Your task to perform on an android device: open app "DuckDuckGo Privacy Browser" (install if not already installed) Image 0: 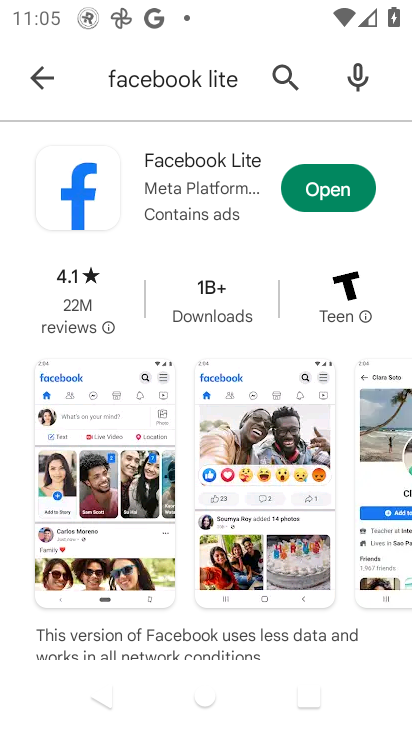
Step 0: click (49, 77)
Your task to perform on an android device: open app "DuckDuckGo Privacy Browser" (install if not already installed) Image 1: 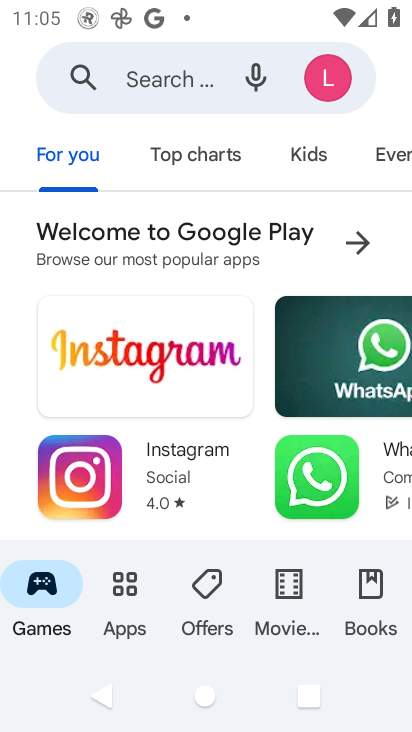
Step 1: click (131, 83)
Your task to perform on an android device: open app "DuckDuckGo Privacy Browser" (install if not already installed) Image 2: 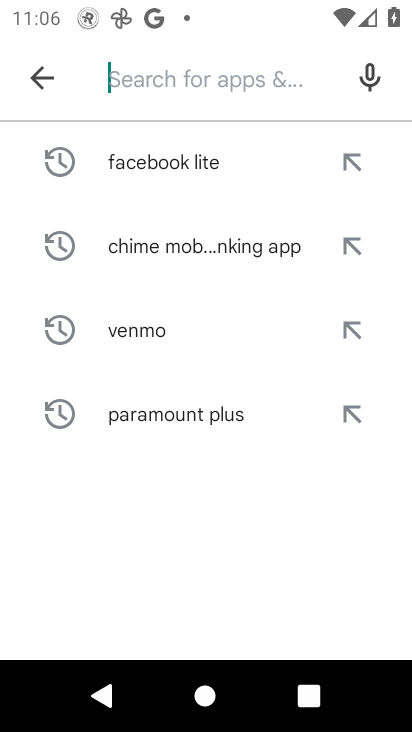
Step 2: type "DuckDuckGo Privacy Browser"
Your task to perform on an android device: open app "DuckDuckGo Privacy Browser" (install if not already installed) Image 3: 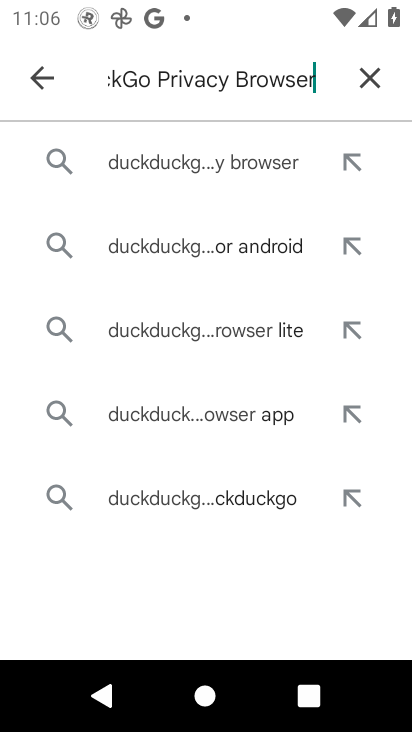
Step 3: click (207, 161)
Your task to perform on an android device: open app "DuckDuckGo Privacy Browser" (install if not already installed) Image 4: 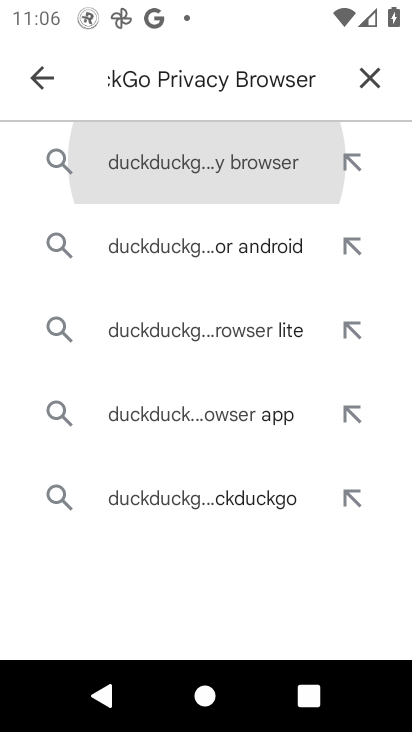
Step 4: click (211, 156)
Your task to perform on an android device: open app "DuckDuckGo Privacy Browser" (install if not already installed) Image 5: 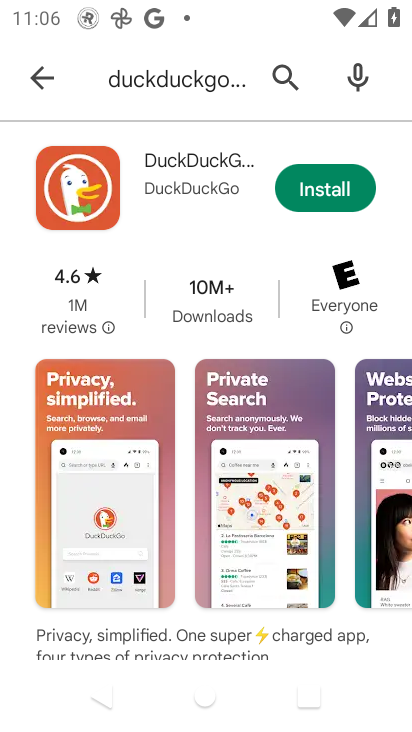
Step 5: click (339, 181)
Your task to perform on an android device: open app "DuckDuckGo Privacy Browser" (install if not already installed) Image 6: 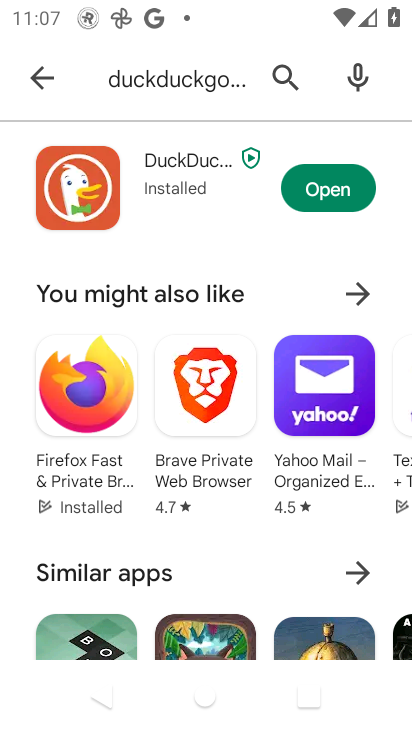
Step 6: click (329, 203)
Your task to perform on an android device: open app "DuckDuckGo Privacy Browser" (install if not already installed) Image 7: 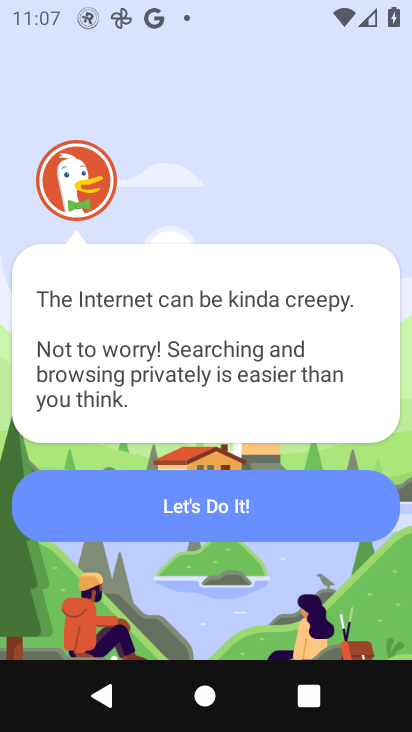
Step 7: press back button
Your task to perform on an android device: open app "DuckDuckGo Privacy Browser" (install if not already installed) Image 8: 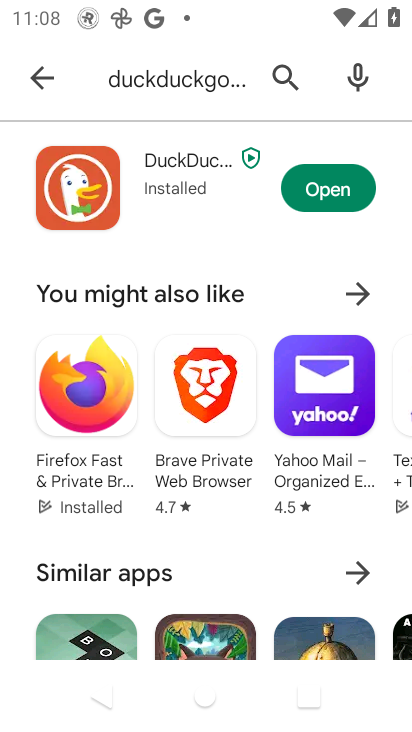
Step 8: click (28, 77)
Your task to perform on an android device: open app "DuckDuckGo Privacy Browser" (install if not already installed) Image 9: 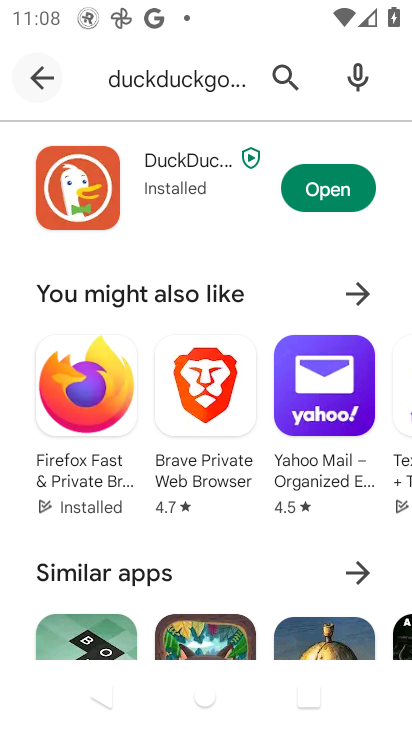
Step 9: click (28, 77)
Your task to perform on an android device: open app "DuckDuckGo Privacy Browser" (install if not already installed) Image 10: 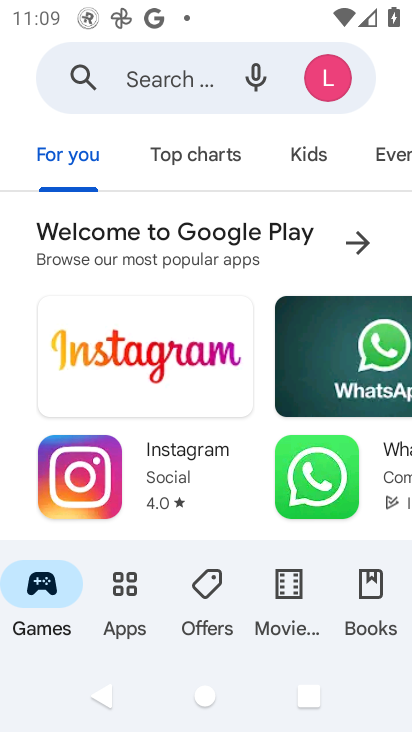
Step 10: click (161, 65)
Your task to perform on an android device: open app "DuckDuckGo Privacy Browser" (install if not already installed) Image 11: 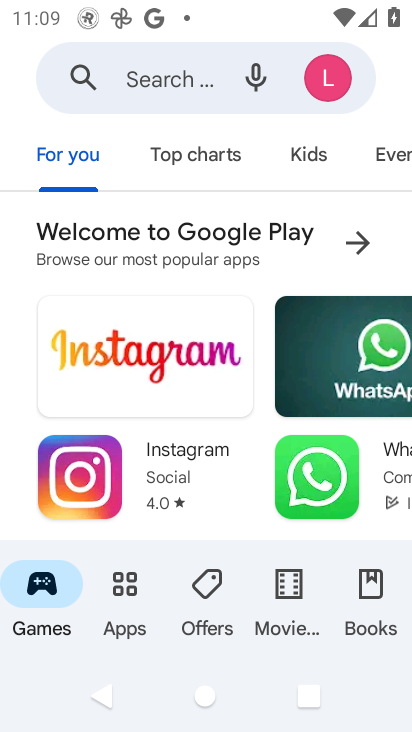
Step 11: click (160, 66)
Your task to perform on an android device: open app "DuckDuckGo Privacy Browser" (install if not already installed) Image 12: 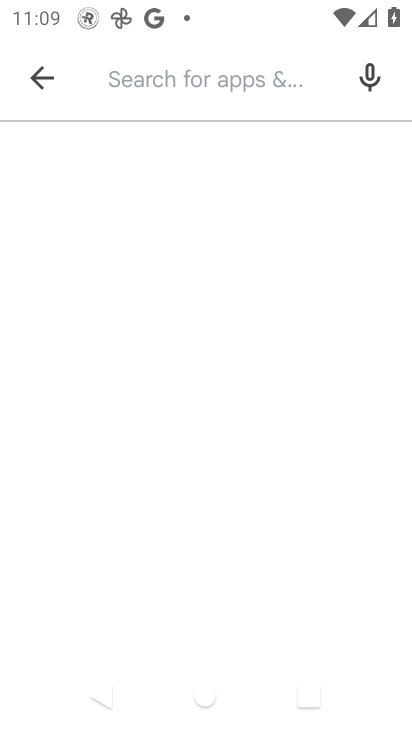
Step 12: click (160, 66)
Your task to perform on an android device: open app "DuckDuckGo Privacy Browser" (install if not already installed) Image 13: 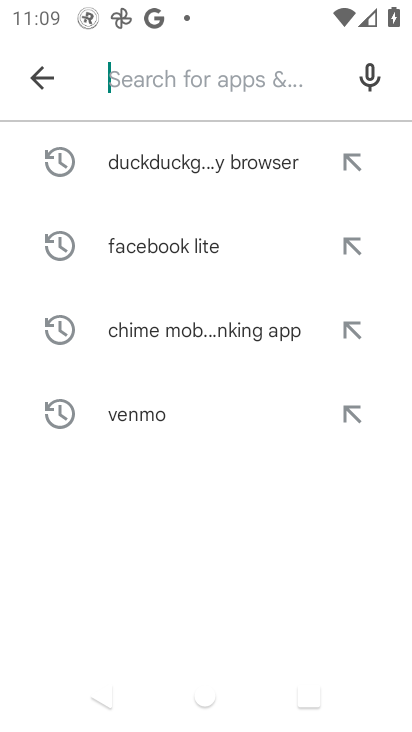
Step 13: click (159, 66)
Your task to perform on an android device: open app "DuckDuckGo Privacy Browser" (install if not already installed) Image 14: 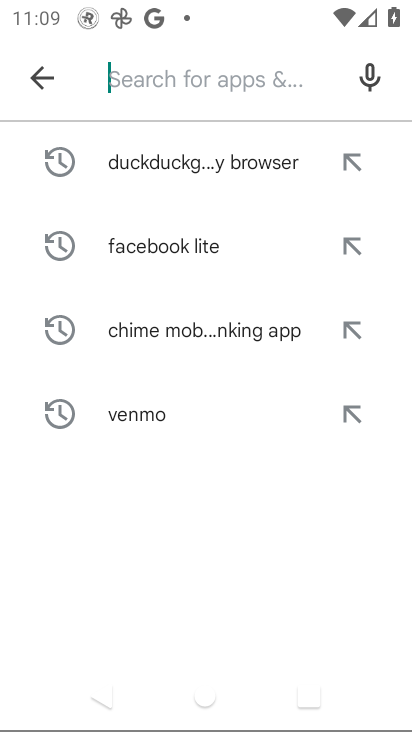
Step 14: click (159, 66)
Your task to perform on an android device: open app "DuckDuckGo Privacy Browser" (install if not already installed) Image 15: 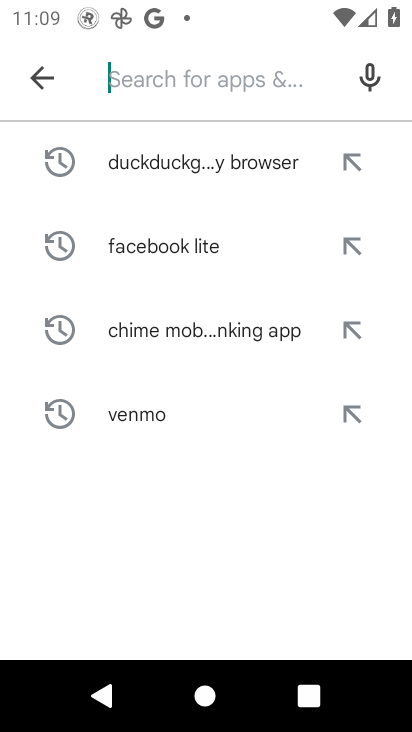
Step 15: click (268, 168)
Your task to perform on an android device: open app "DuckDuckGo Privacy Browser" (install if not already installed) Image 16: 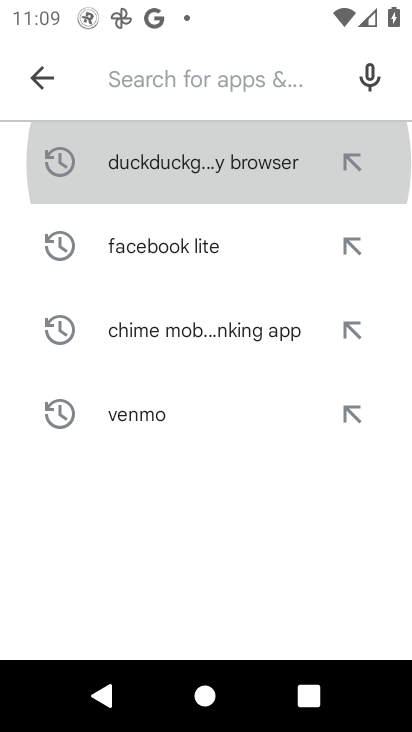
Step 16: click (268, 168)
Your task to perform on an android device: open app "DuckDuckGo Privacy Browser" (install if not already installed) Image 17: 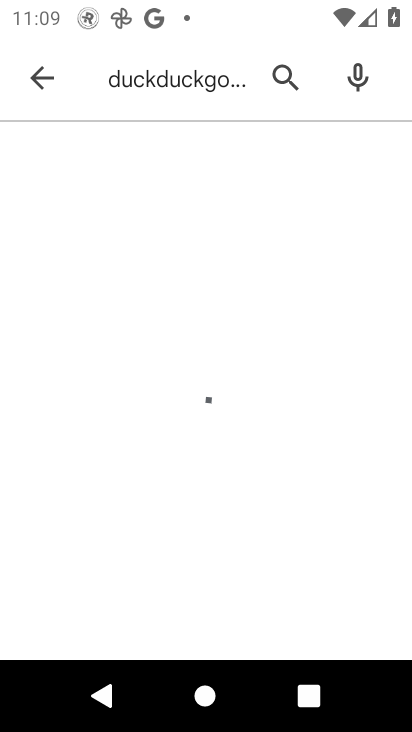
Step 17: click (268, 168)
Your task to perform on an android device: open app "DuckDuckGo Privacy Browser" (install if not already installed) Image 18: 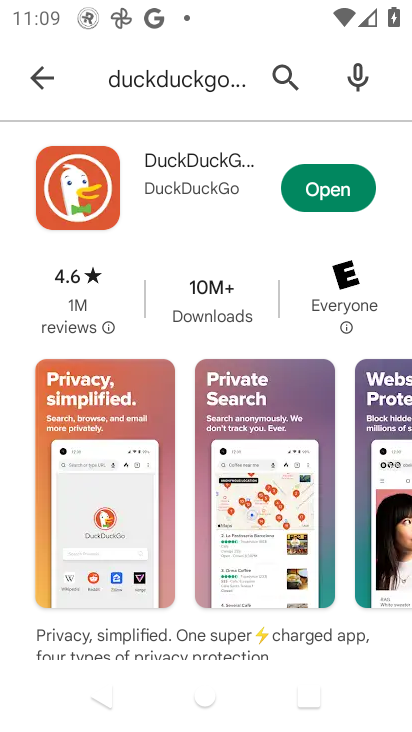
Step 18: click (318, 186)
Your task to perform on an android device: open app "DuckDuckGo Privacy Browser" (install if not already installed) Image 19: 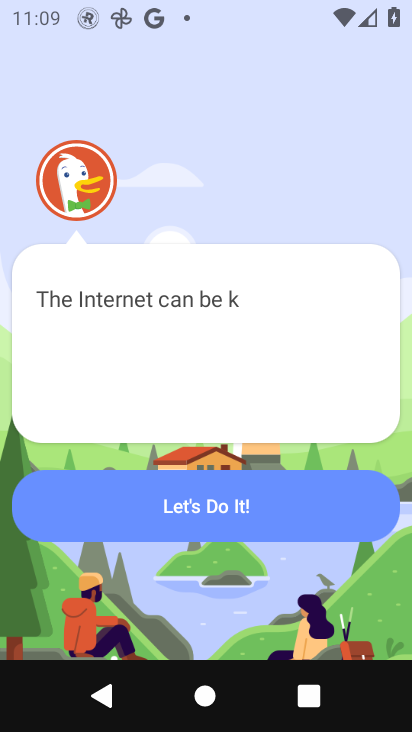
Step 19: drag from (268, 512) to (279, 256)
Your task to perform on an android device: open app "DuckDuckGo Privacy Browser" (install if not already installed) Image 20: 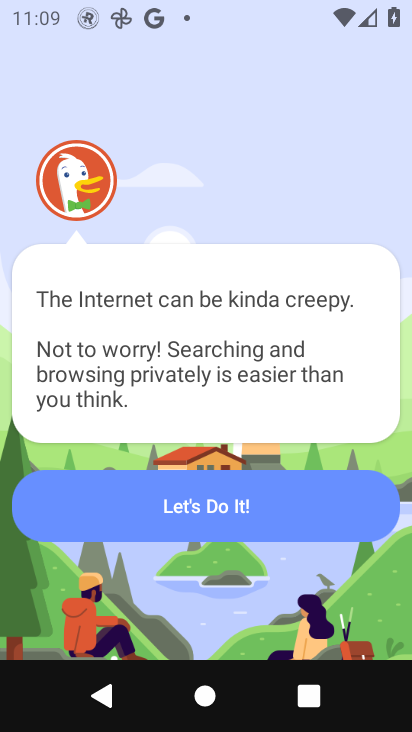
Step 20: click (202, 503)
Your task to perform on an android device: open app "DuckDuckGo Privacy Browser" (install if not already installed) Image 21: 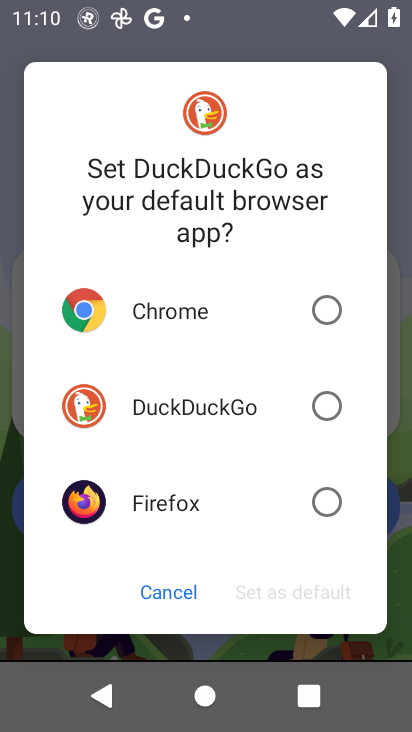
Step 21: click (321, 305)
Your task to perform on an android device: open app "DuckDuckGo Privacy Browser" (install if not already installed) Image 22: 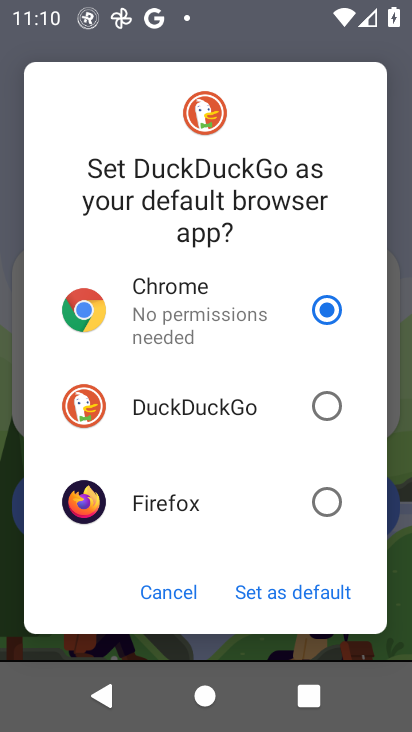
Step 22: click (297, 585)
Your task to perform on an android device: open app "DuckDuckGo Privacy Browser" (install if not already installed) Image 23: 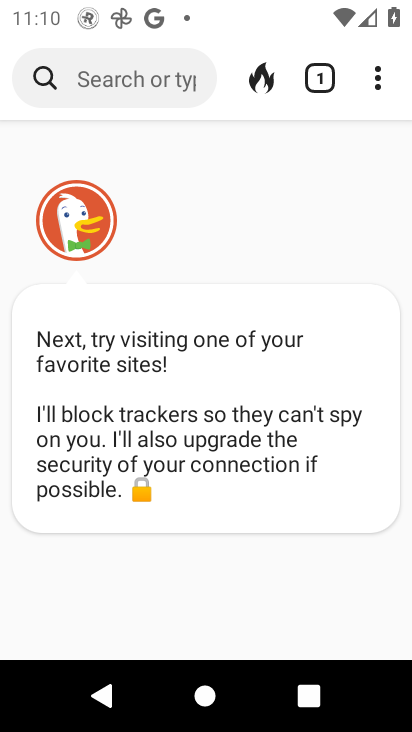
Step 23: task complete